Your task to perform on an android device: set an alarm Image 0: 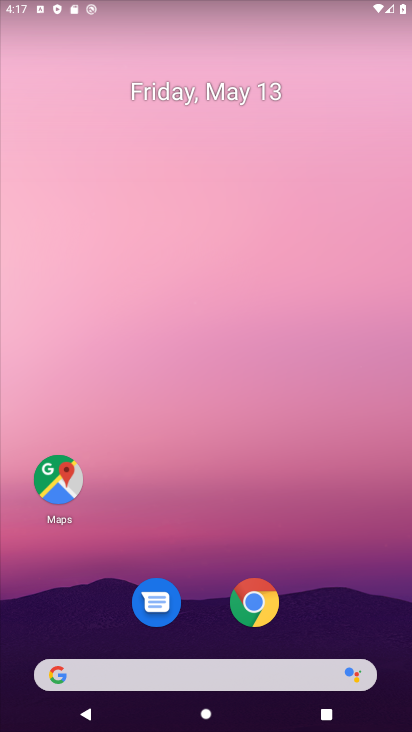
Step 0: drag from (212, 661) to (205, 231)
Your task to perform on an android device: set an alarm Image 1: 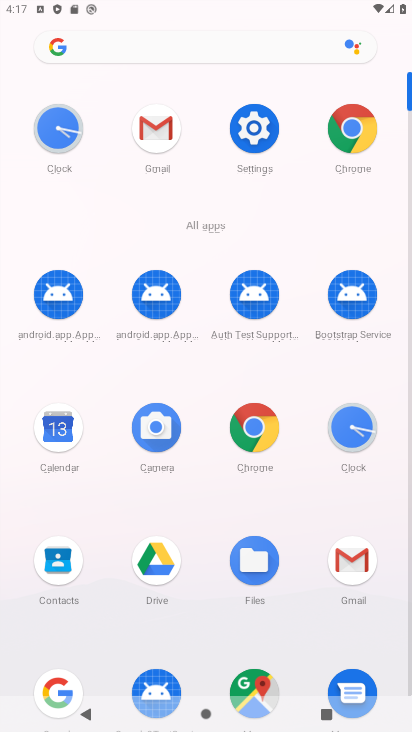
Step 1: click (365, 431)
Your task to perform on an android device: set an alarm Image 2: 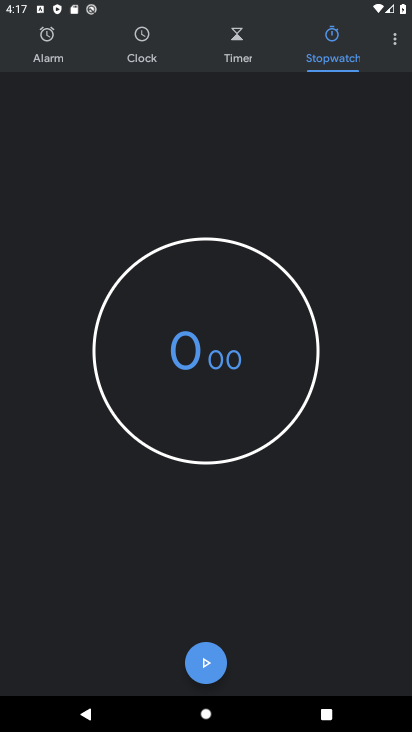
Step 2: click (67, 60)
Your task to perform on an android device: set an alarm Image 3: 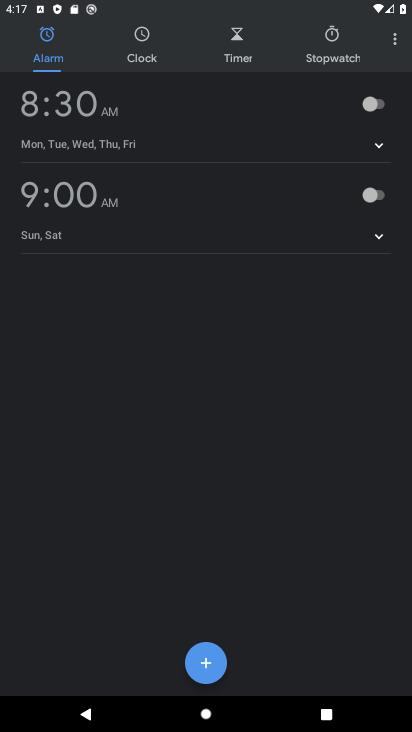
Step 3: click (373, 107)
Your task to perform on an android device: set an alarm Image 4: 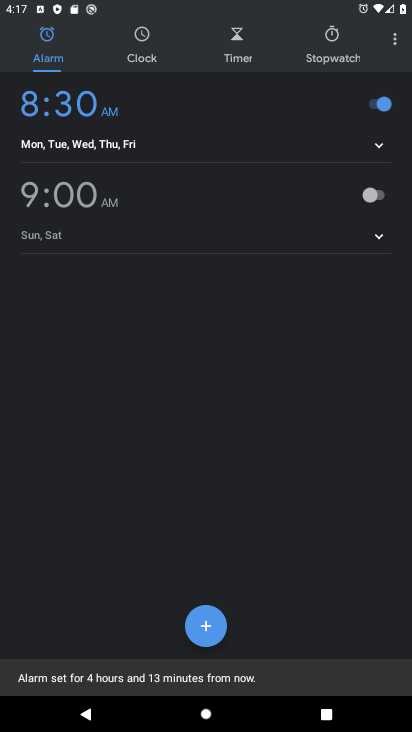
Step 4: task complete